Your task to perform on an android device: delete a single message in the gmail app Image 0: 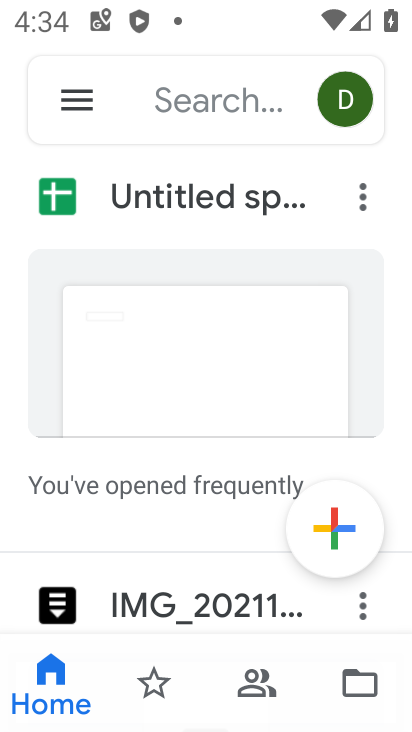
Step 0: press home button
Your task to perform on an android device: delete a single message in the gmail app Image 1: 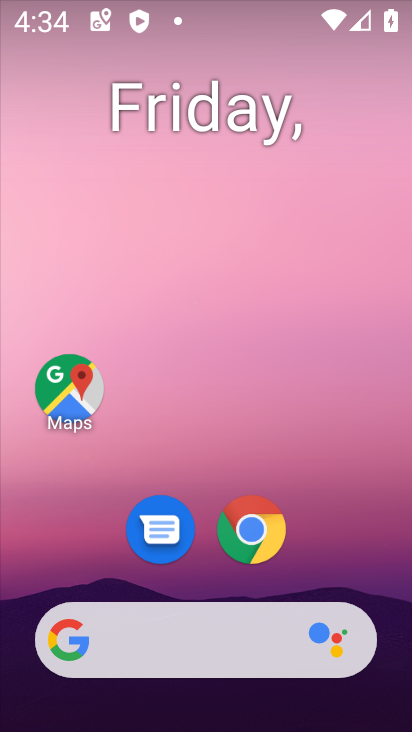
Step 1: drag from (299, 526) to (249, 109)
Your task to perform on an android device: delete a single message in the gmail app Image 2: 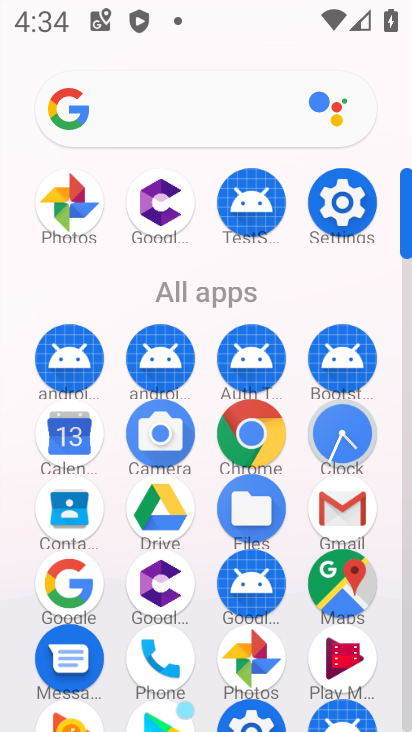
Step 2: drag from (322, 561) to (221, 0)
Your task to perform on an android device: delete a single message in the gmail app Image 3: 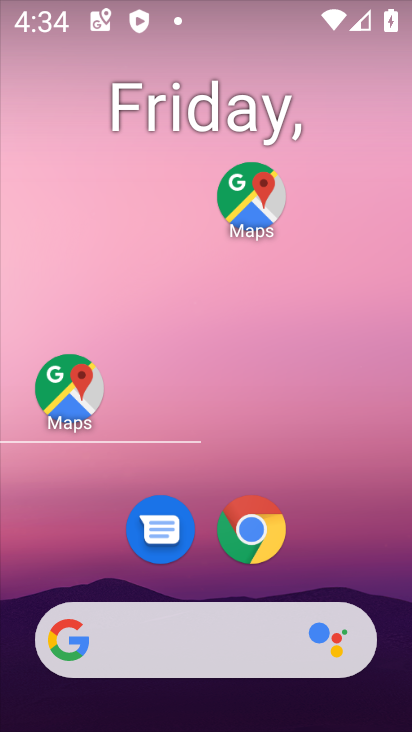
Step 3: drag from (291, 536) to (147, 12)
Your task to perform on an android device: delete a single message in the gmail app Image 4: 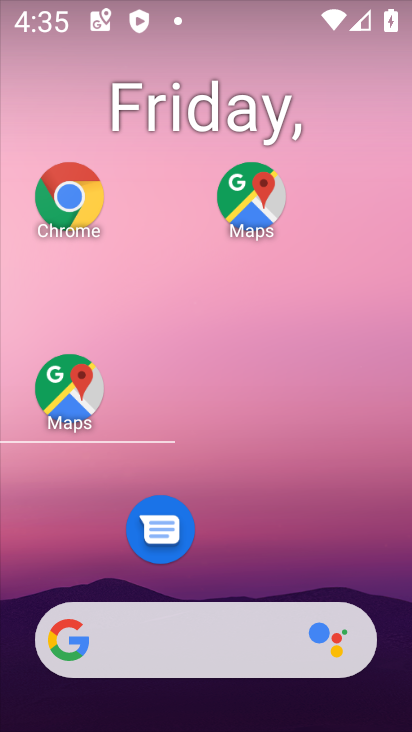
Step 4: drag from (307, 216) to (306, 34)
Your task to perform on an android device: delete a single message in the gmail app Image 5: 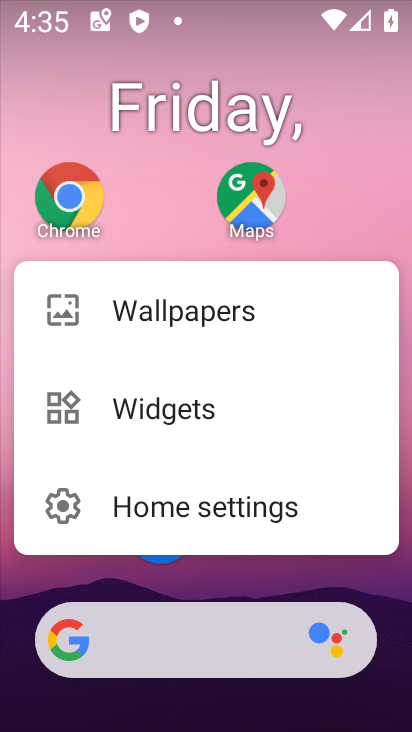
Step 5: click (260, 194)
Your task to perform on an android device: delete a single message in the gmail app Image 6: 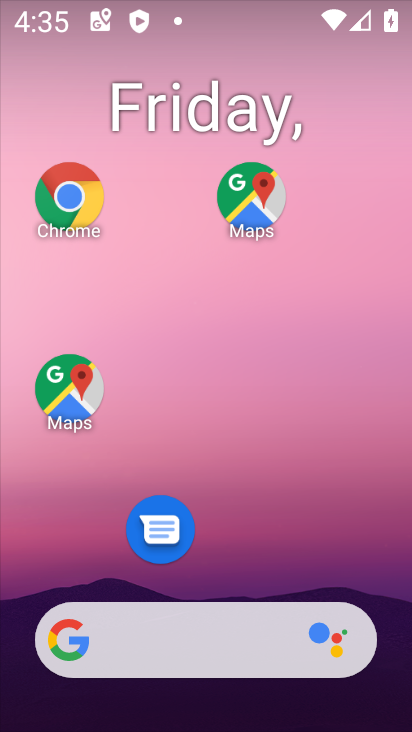
Step 6: click (205, 94)
Your task to perform on an android device: delete a single message in the gmail app Image 7: 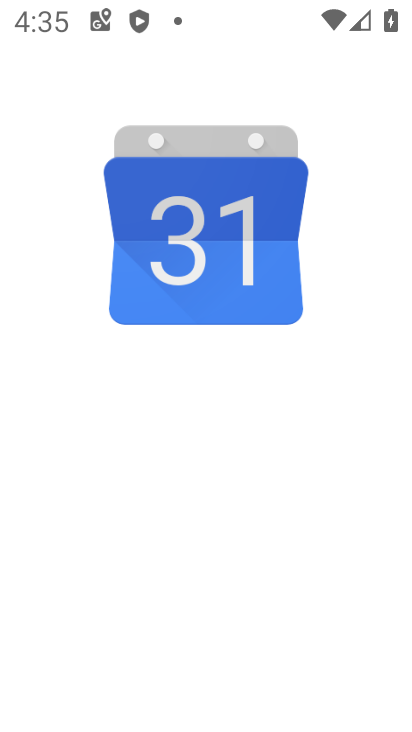
Step 7: click (150, 97)
Your task to perform on an android device: delete a single message in the gmail app Image 8: 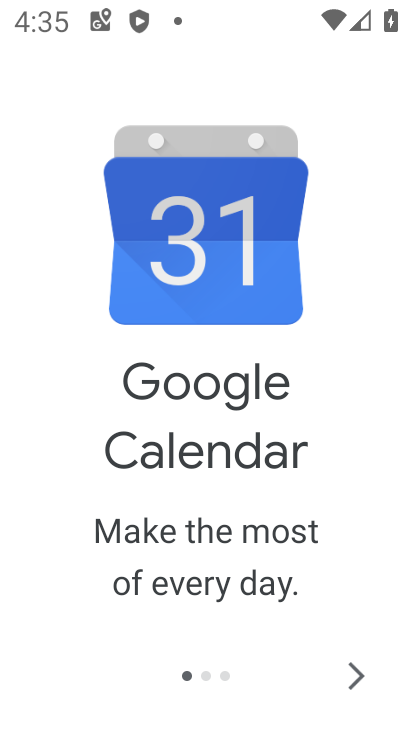
Step 8: click (270, 574)
Your task to perform on an android device: delete a single message in the gmail app Image 9: 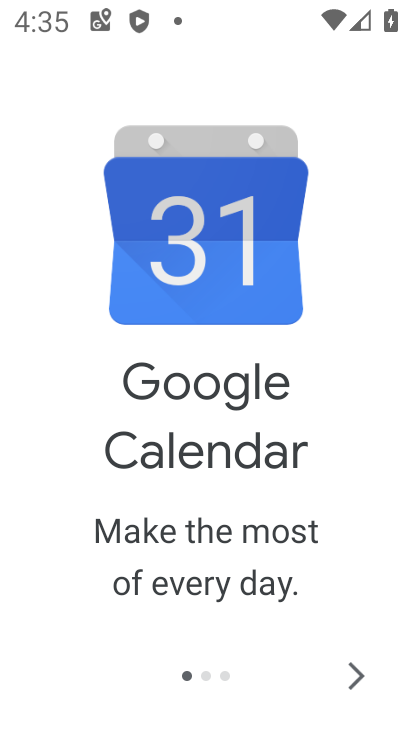
Step 9: click (353, 677)
Your task to perform on an android device: delete a single message in the gmail app Image 10: 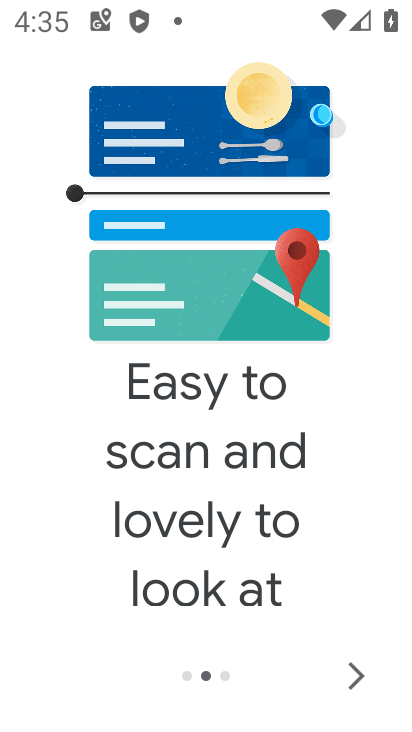
Step 10: click (354, 677)
Your task to perform on an android device: delete a single message in the gmail app Image 11: 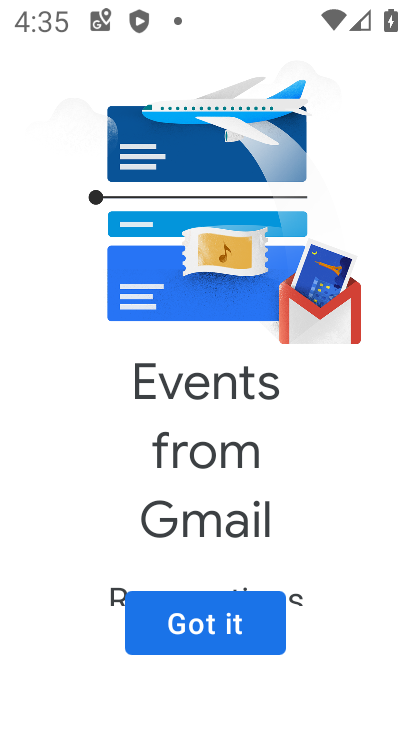
Step 11: click (226, 629)
Your task to perform on an android device: delete a single message in the gmail app Image 12: 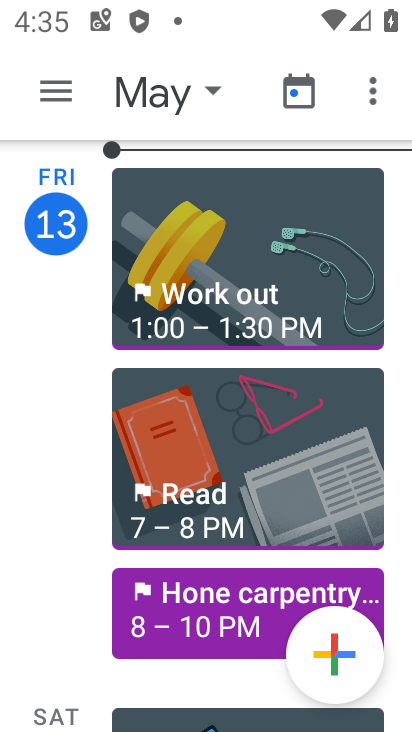
Step 12: press home button
Your task to perform on an android device: delete a single message in the gmail app Image 13: 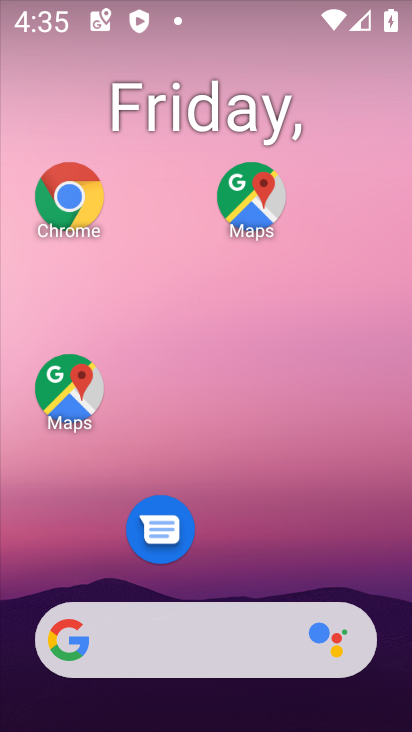
Step 13: drag from (230, 378) to (181, 87)
Your task to perform on an android device: delete a single message in the gmail app Image 14: 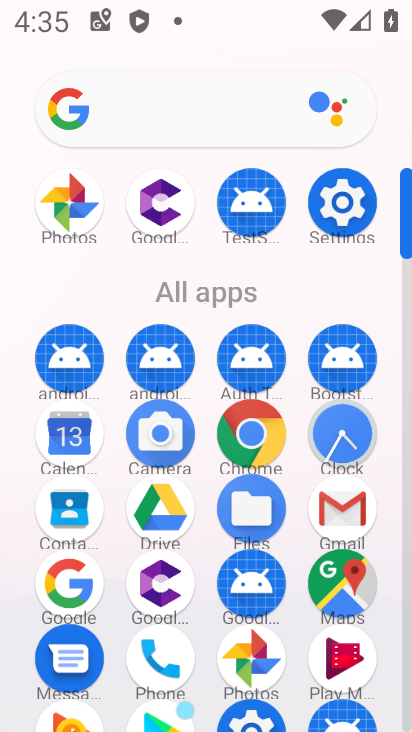
Step 14: click (330, 508)
Your task to perform on an android device: delete a single message in the gmail app Image 15: 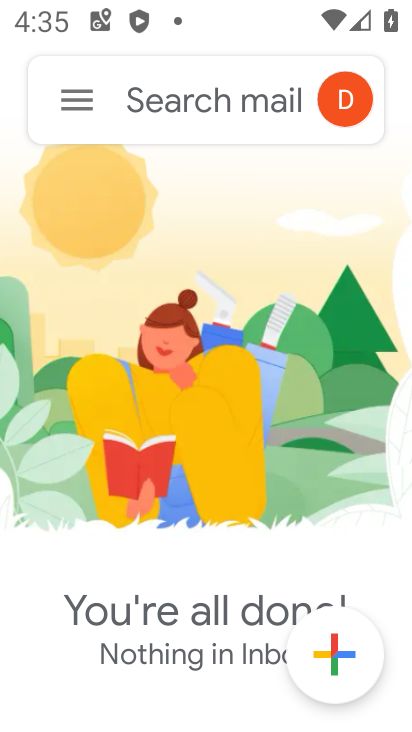
Step 15: click (74, 105)
Your task to perform on an android device: delete a single message in the gmail app Image 16: 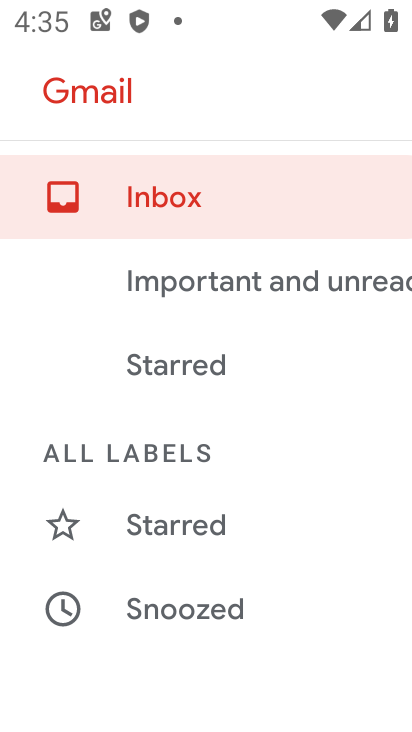
Step 16: drag from (240, 448) to (234, 186)
Your task to perform on an android device: delete a single message in the gmail app Image 17: 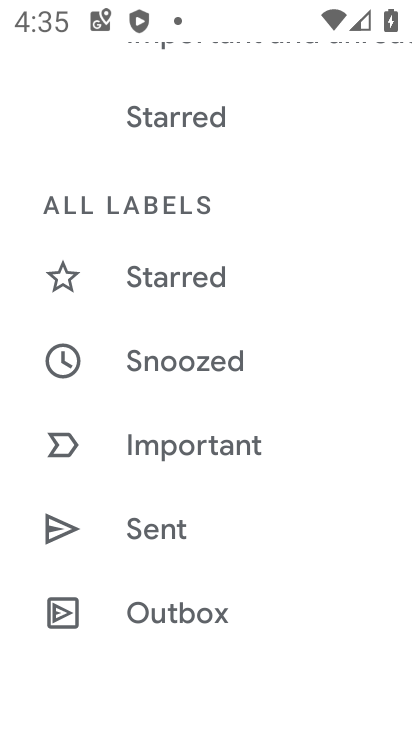
Step 17: drag from (217, 588) to (223, 285)
Your task to perform on an android device: delete a single message in the gmail app Image 18: 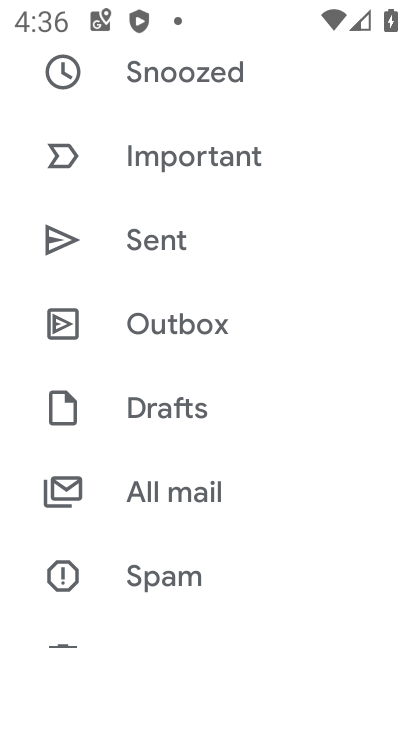
Step 18: click (199, 500)
Your task to perform on an android device: delete a single message in the gmail app Image 19: 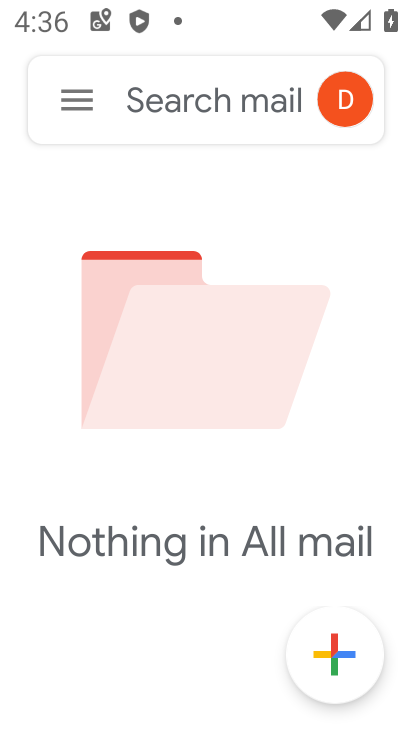
Step 19: task complete